Your task to perform on an android device: Go to settings Image 0: 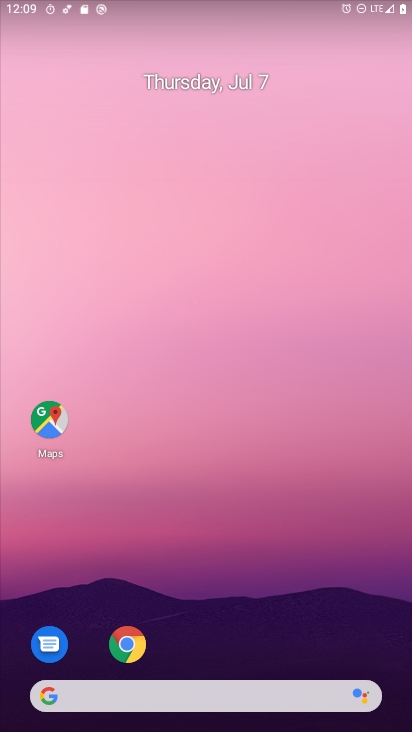
Step 0: drag from (201, 655) to (166, 90)
Your task to perform on an android device: Go to settings Image 1: 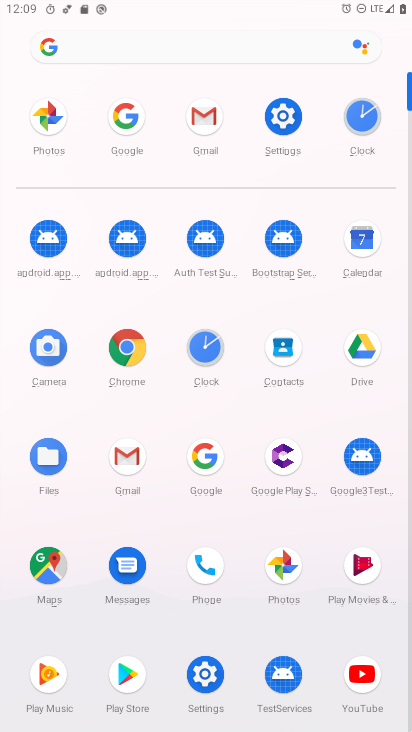
Step 1: click (290, 108)
Your task to perform on an android device: Go to settings Image 2: 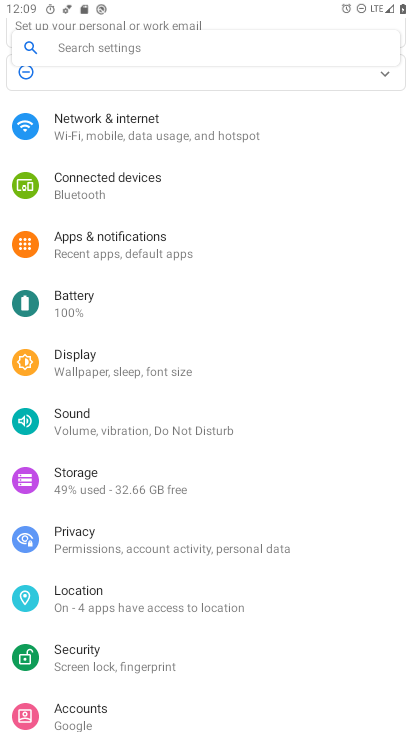
Step 2: task complete